Your task to perform on an android device: change the clock style Image 0: 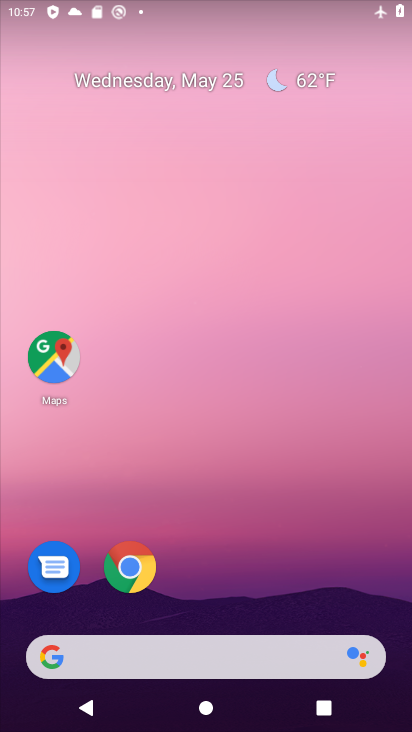
Step 0: drag from (338, 600) to (327, 15)
Your task to perform on an android device: change the clock style Image 1: 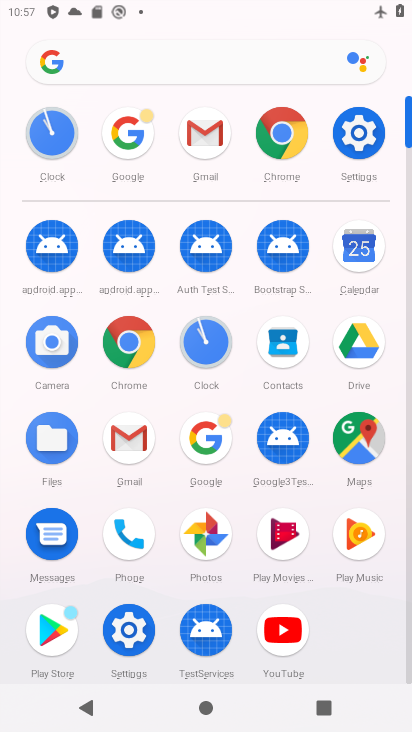
Step 1: click (199, 331)
Your task to perform on an android device: change the clock style Image 2: 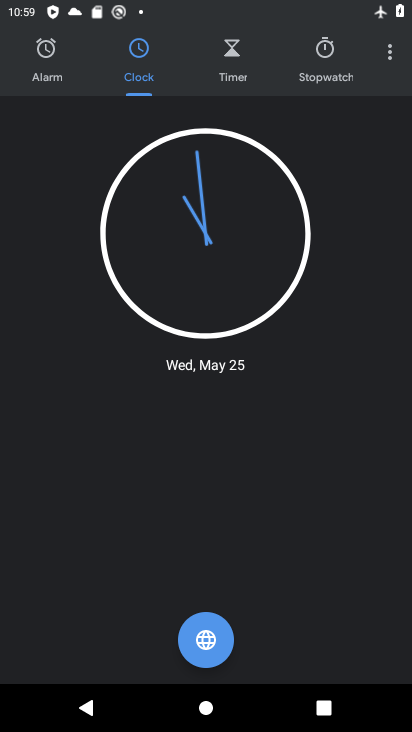
Step 2: click (399, 37)
Your task to perform on an android device: change the clock style Image 3: 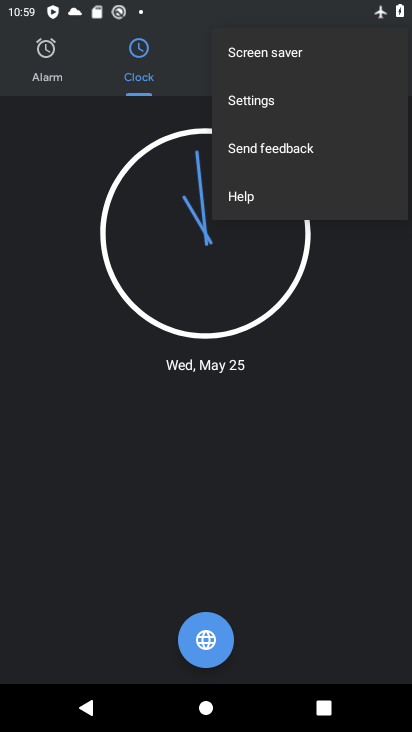
Step 3: click (300, 99)
Your task to perform on an android device: change the clock style Image 4: 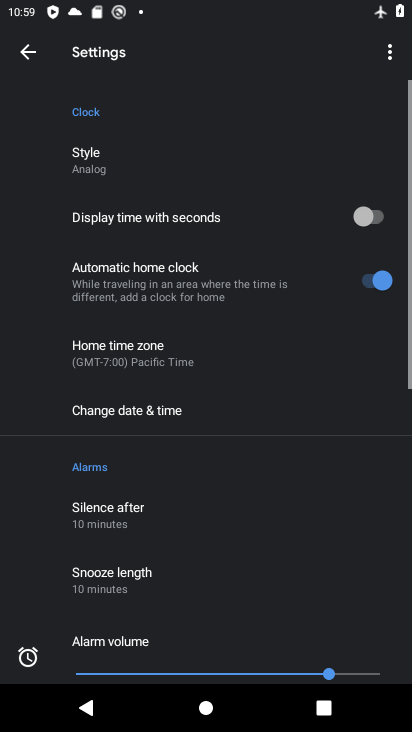
Step 4: click (119, 170)
Your task to perform on an android device: change the clock style Image 5: 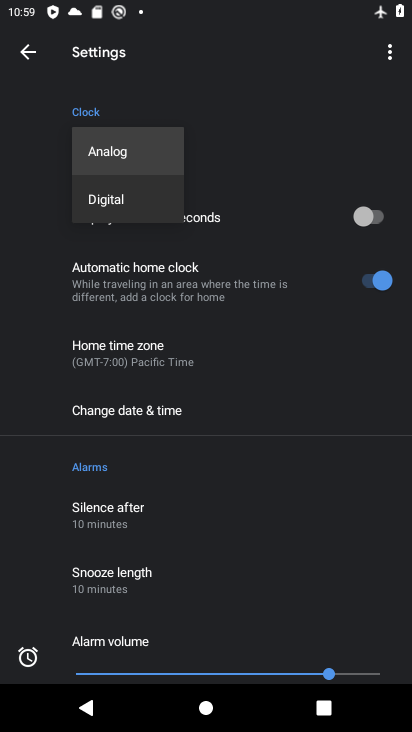
Step 5: click (133, 204)
Your task to perform on an android device: change the clock style Image 6: 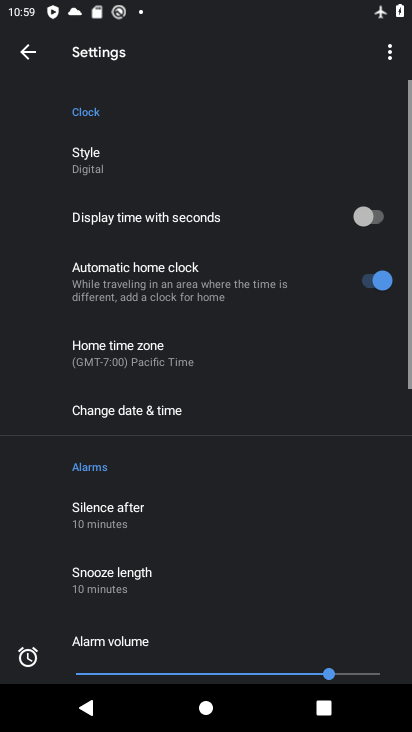
Step 6: task complete